Your task to perform on an android device: manage bookmarks in the chrome app Image 0: 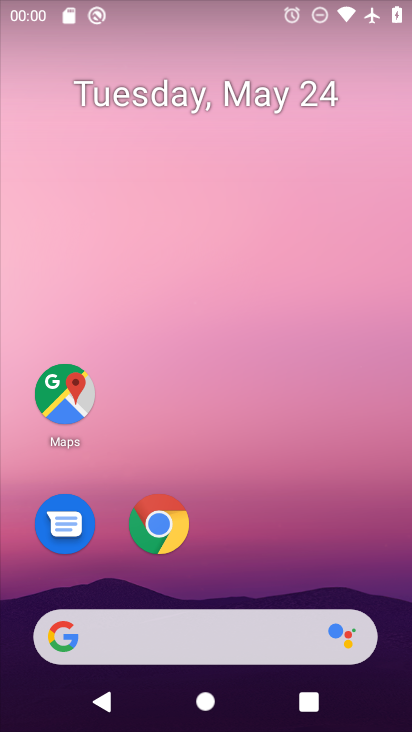
Step 0: click (148, 528)
Your task to perform on an android device: manage bookmarks in the chrome app Image 1: 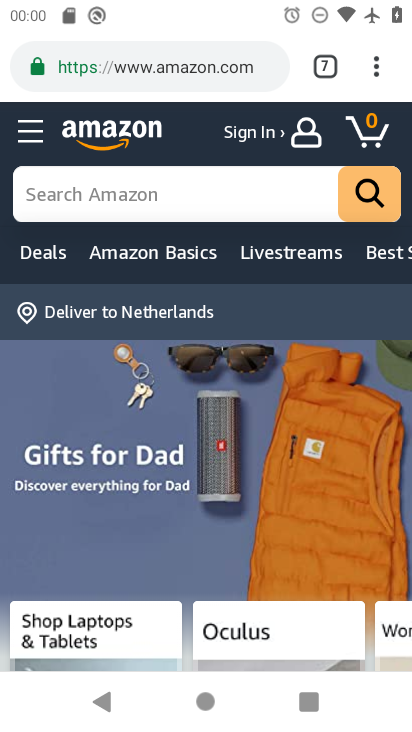
Step 1: drag from (369, 71) to (177, 315)
Your task to perform on an android device: manage bookmarks in the chrome app Image 2: 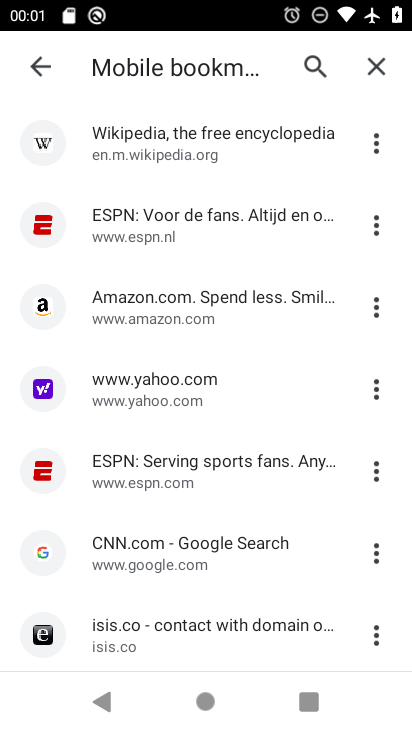
Step 2: click (373, 371)
Your task to perform on an android device: manage bookmarks in the chrome app Image 3: 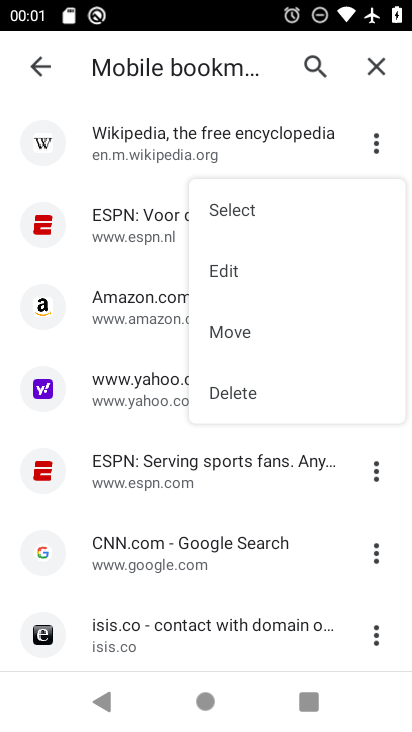
Step 3: click (373, 396)
Your task to perform on an android device: manage bookmarks in the chrome app Image 4: 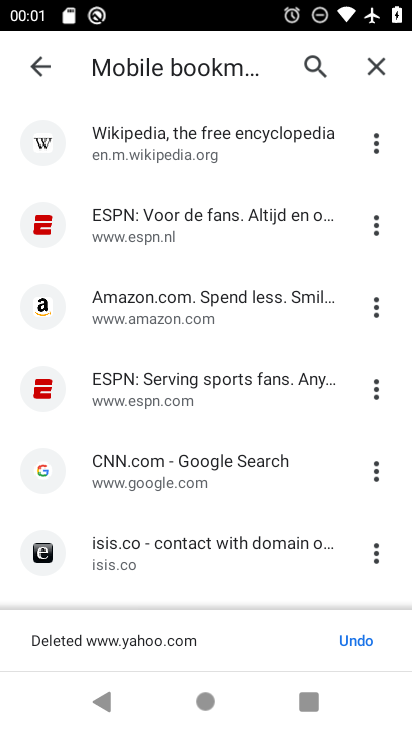
Step 4: task complete